Your task to perform on an android device: set the stopwatch Image 0: 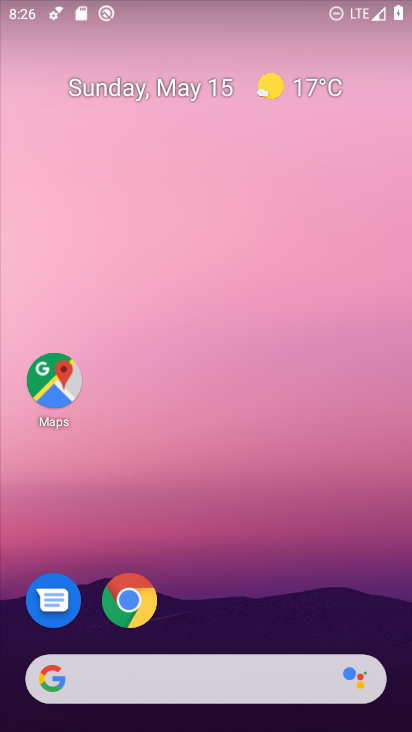
Step 0: drag from (249, 589) to (190, 172)
Your task to perform on an android device: set the stopwatch Image 1: 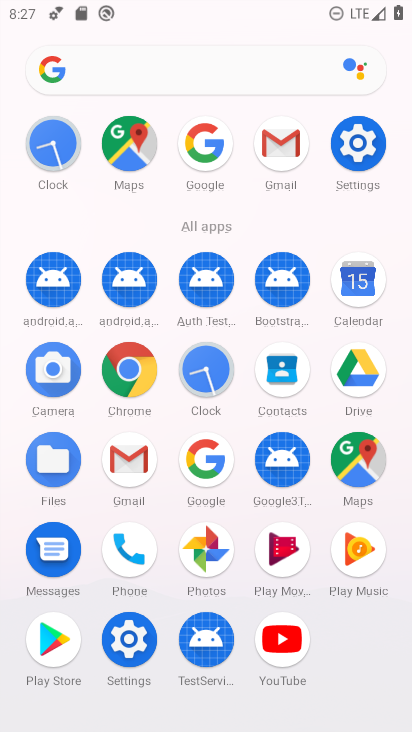
Step 1: click (205, 367)
Your task to perform on an android device: set the stopwatch Image 2: 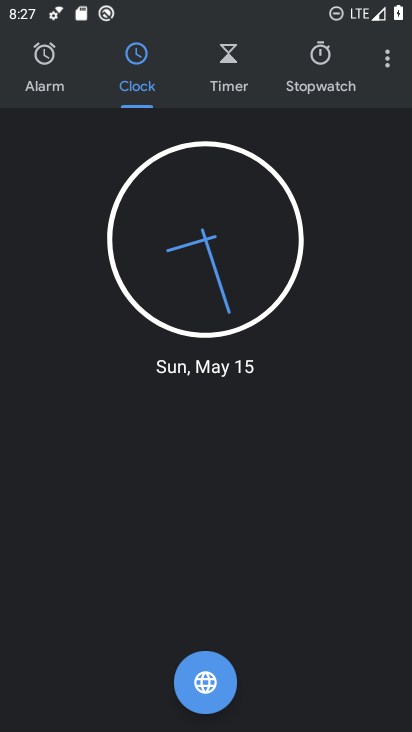
Step 2: click (318, 59)
Your task to perform on an android device: set the stopwatch Image 3: 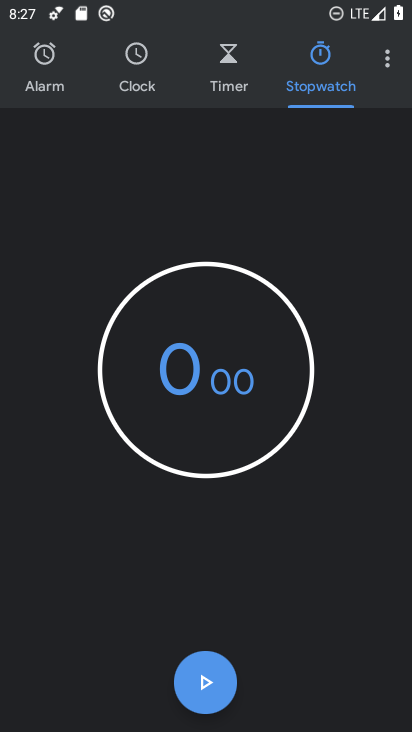
Step 3: click (201, 682)
Your task to perform on an android device: set the stopwatch Image 4: 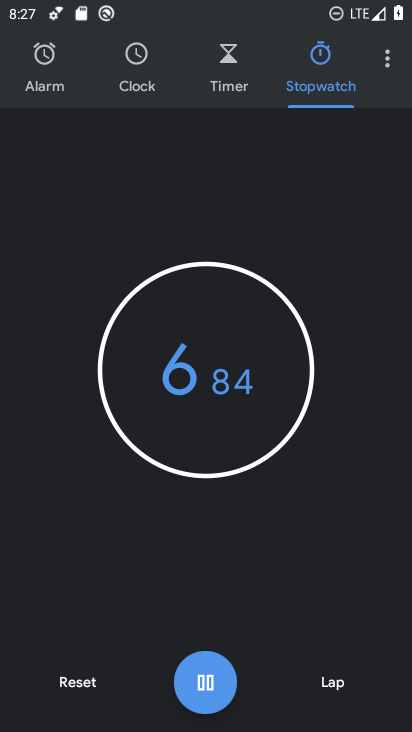
Step 4: click (201, 682)
Your task to perform on an android device: set the stopwatch Image 5: 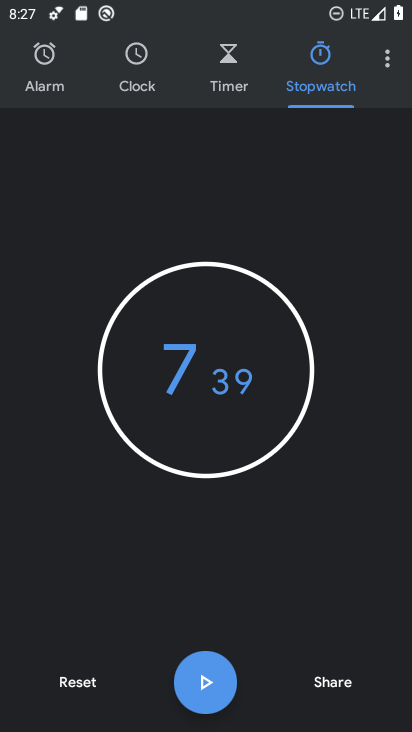
Step 5: task complete